Your task to perform on an android device: Open the Play Movies app and select the watchlist tab. Image 0: 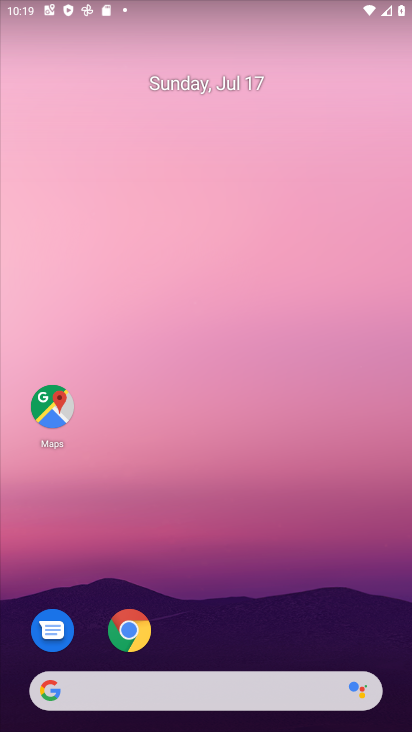
Step 0: drag from (271, 641) to (278, 155)
Your task to perform on an android device: Open the Play Movies app and select the watchlist tab. Image 1: 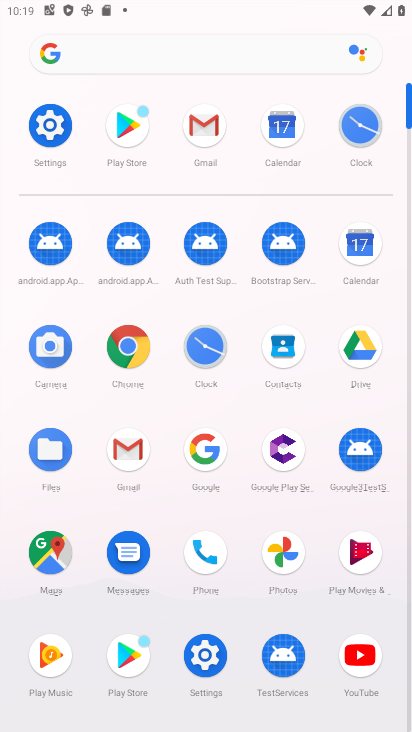
Step 1: click (369, 562)
Your task to perform on an android device: Open the Play Movies app and select the watchlist tab. Image 2: 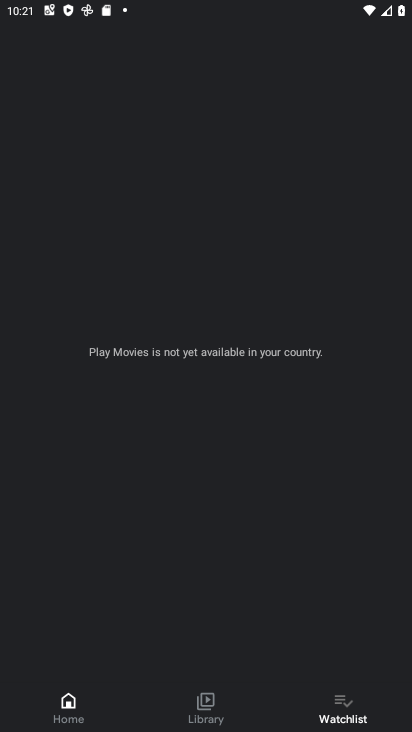
Step 2: task complete